Your task to perform on an android device: Go to calendar. Show me events next week Image 0: 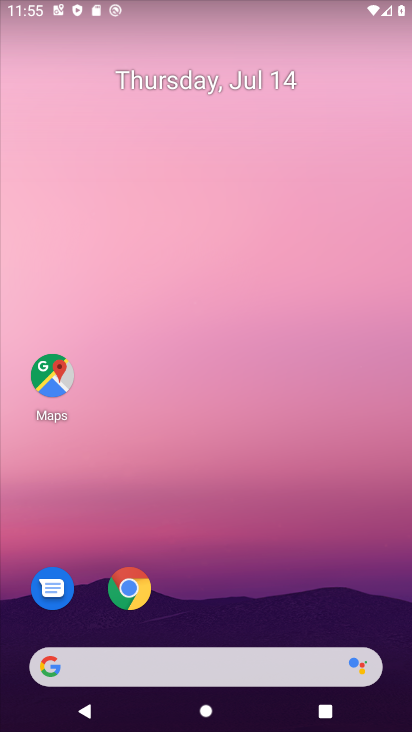
Step 0: drag from (146, 712) to (260, 46)
Your task to perform on an android device: Go to calendar. Show me events next week Image 1: 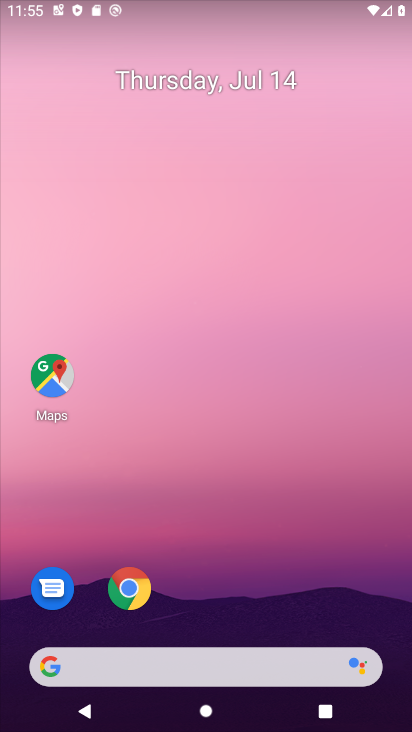
Step 1: drag from (170, 609) to (283, 69)
Your task to perform on an android device: Go to calendar. Show me events next week Image 2: 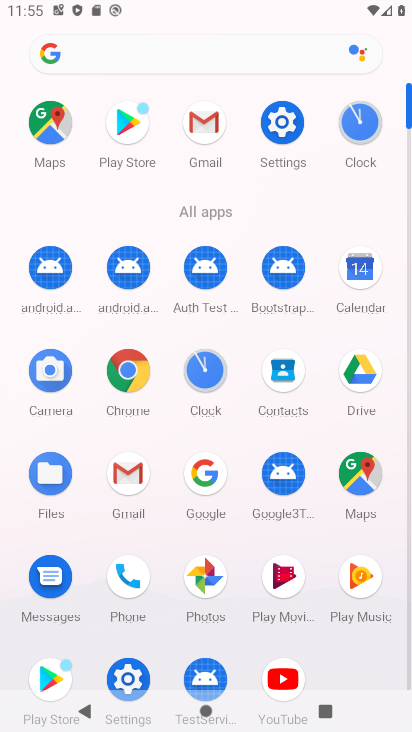
Step 2: click (371, 289)
Your task to perform on an android device: Go to calendar. Show me events next week Image 3: 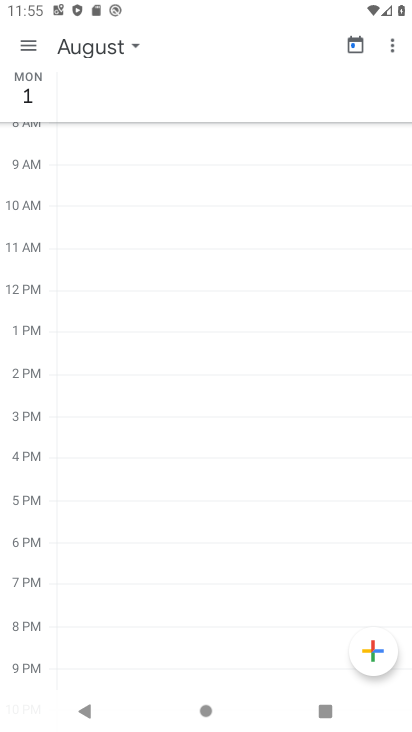
Step 3: click (86, 40)
Your task to perform on an android device: Go to calendar. Show me events next week Image 4: 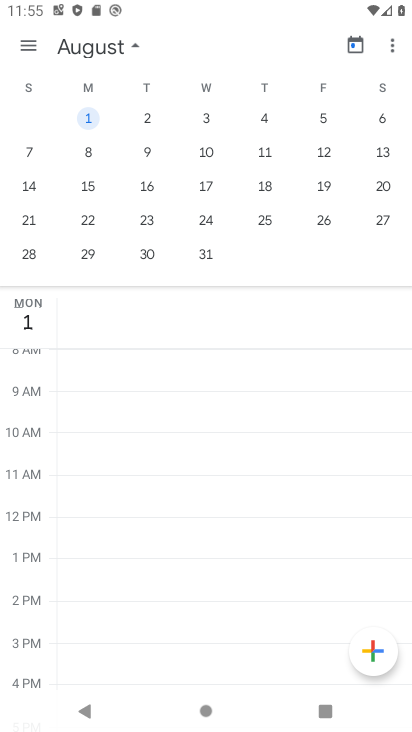
Step 4: drag from (72, 183) to (403, 216)
Your task to perform on an android device: Go to calendar. Show me events next week Image 5: 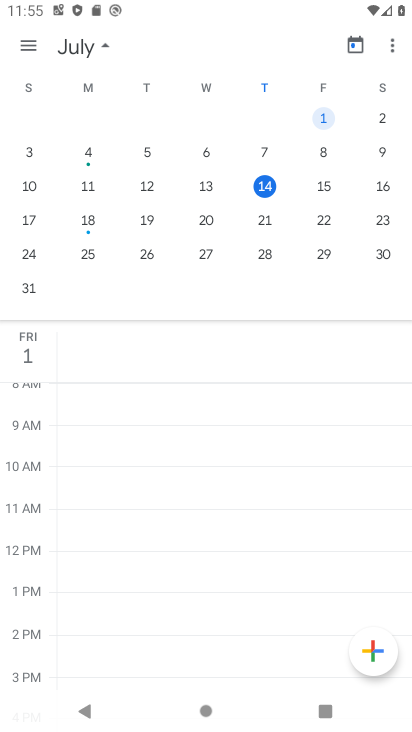
Step 5: click (28, 222)
Your task to perform on an android device: Go to calendar. Show me events next week Image 6: 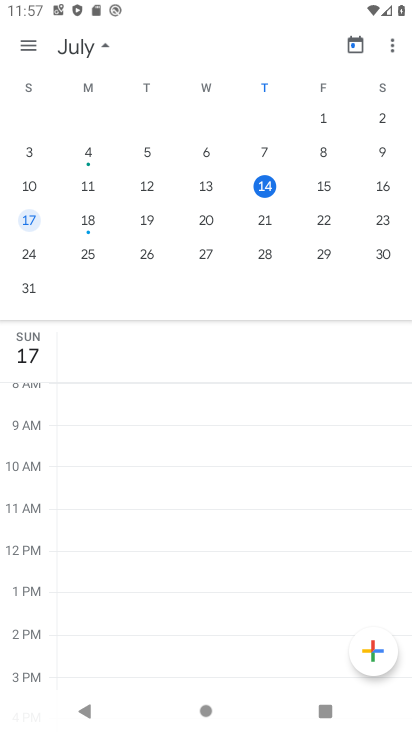
Step 6: task complete